Your task to perform on an android device: Search for vegetarian restaurants on Maps Image 0: 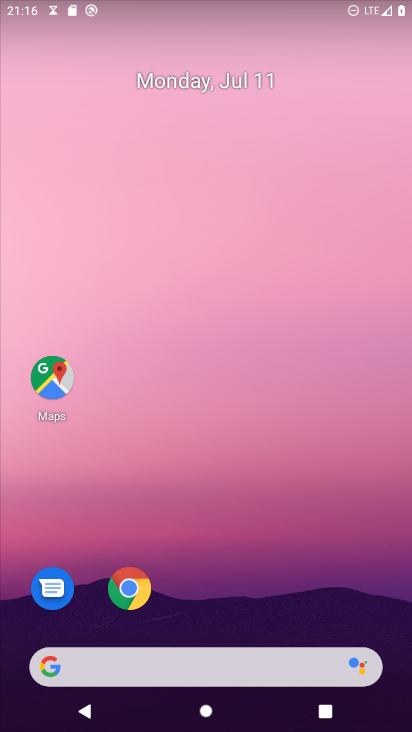
Step 0: drag from (219, 617) to (286, 19)
Your task to perform on an android device: Search for vegetarian restaurants on Maps Image 1: 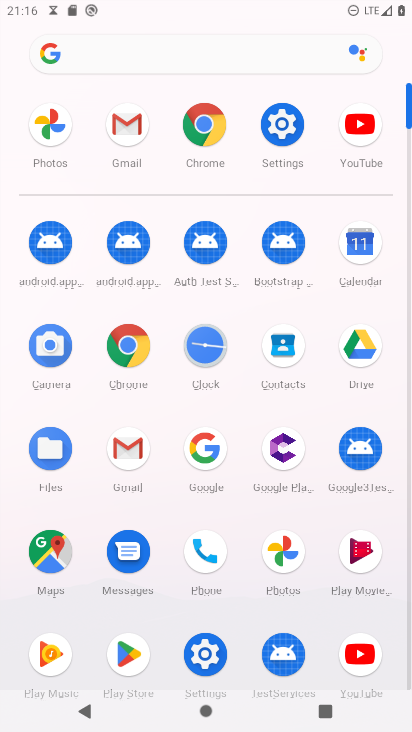
Step 1: click (57, 551)
Your task to perform on an android device: Search for vegetarian restaurants on Maps Image 2: 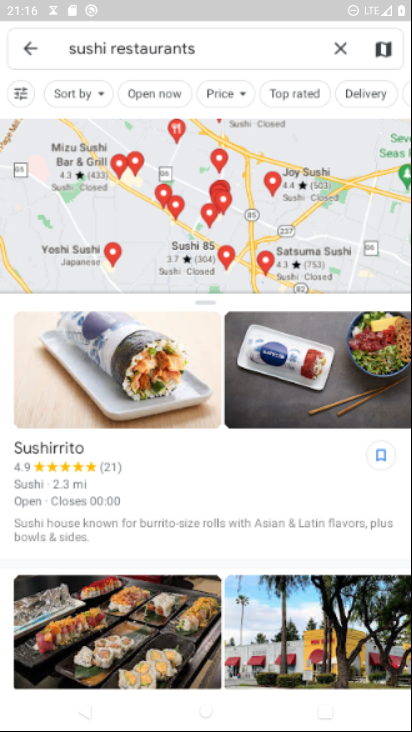
Step 2: press back button
Your task to perform on an android device: Search for vegetarian restaurants on Maps Image 3: 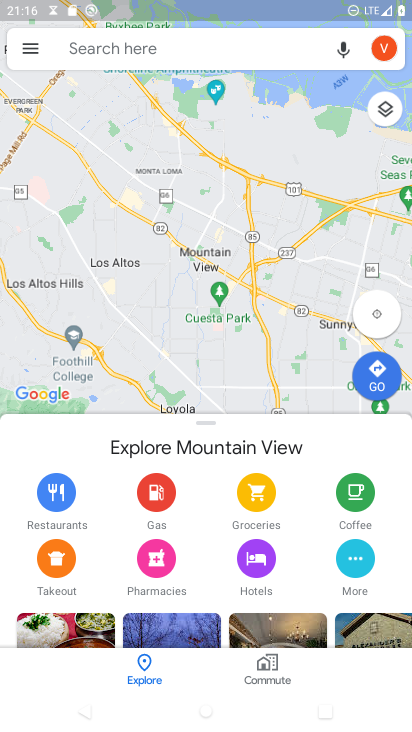
Step 3: click (183, 49)
Your task to perform on an android device: Search for vegetarian restaurants on Maps Image 4: 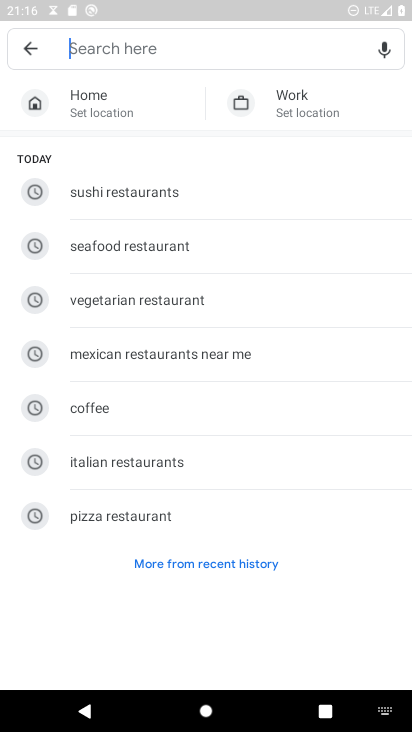
Step 4: click (131, 297)
Your task to perform on an android device: Search for vegetarian restaurants on Maps Image 5: 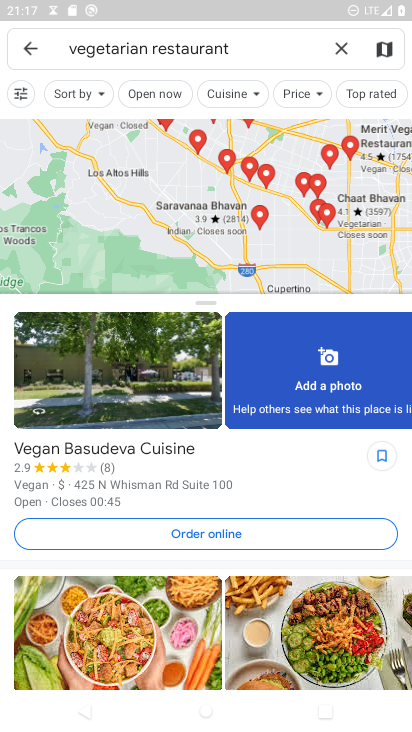
Step 5: task complete